Your task to perform on an android device: Go to Wikipedia Image 0: 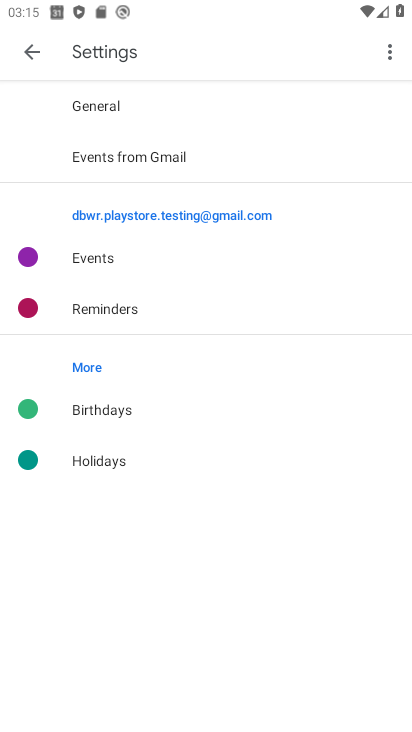
Step 0: click (138, 621)
Your task to perform on an android device: Go to Wikipedia Image 1: 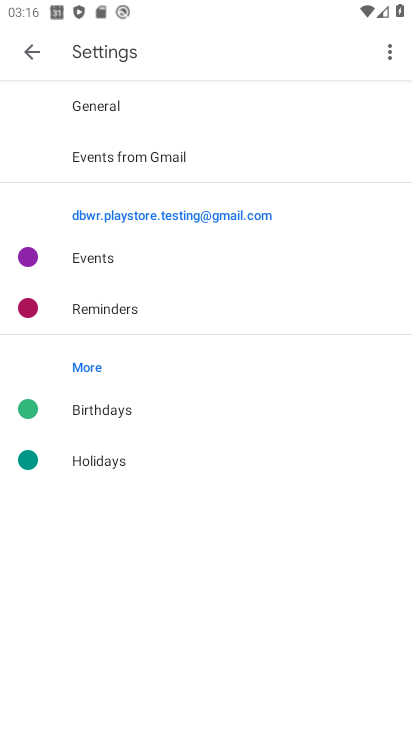
Step 1: press home button
Your task to perform on an android device: Go to Wikipedia Image 2: 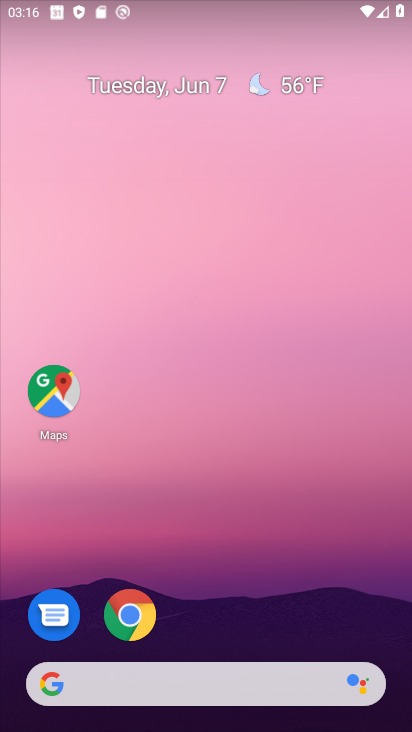
Step 2: drag from (143, 664) to (130, 366)
Your task to perform on an android device: Go to Wikipedia Image 3: 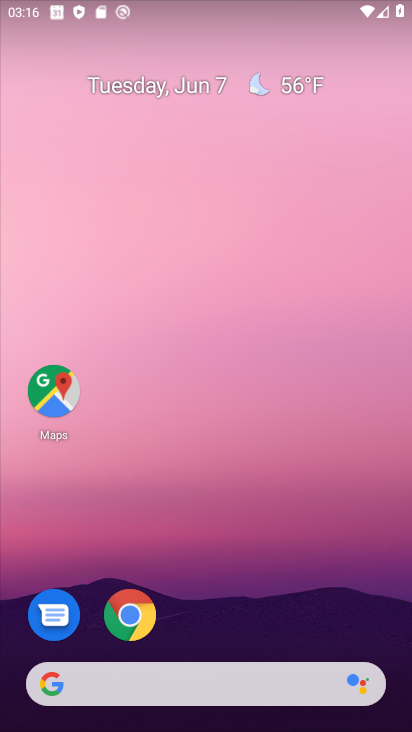
Step 3: drag from (235, 629) to (201, 285)
Your task to perform on an android device: Go to Wikipedia Image 4: 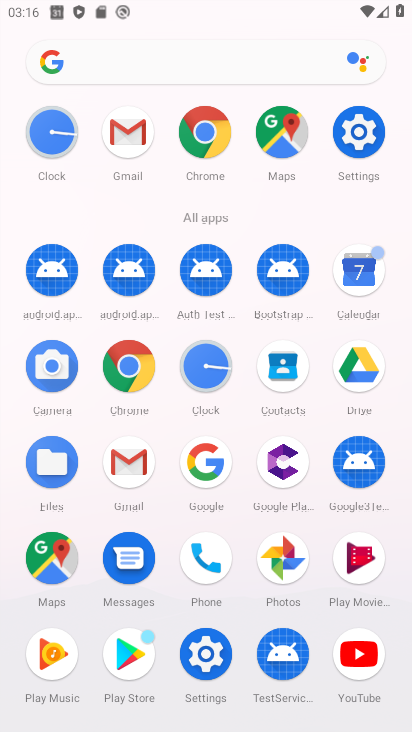
Step 4: click (211, 131)
Your task to perform on an android device: Go to Wikipedia Image 5: 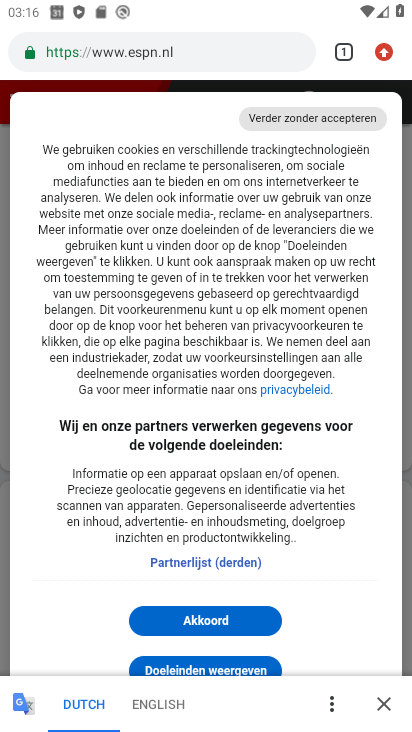
Step 5: drag from (200, 204) to (195, 459)
Your task to perform on an android device: Go to Wikipedia Image 6: 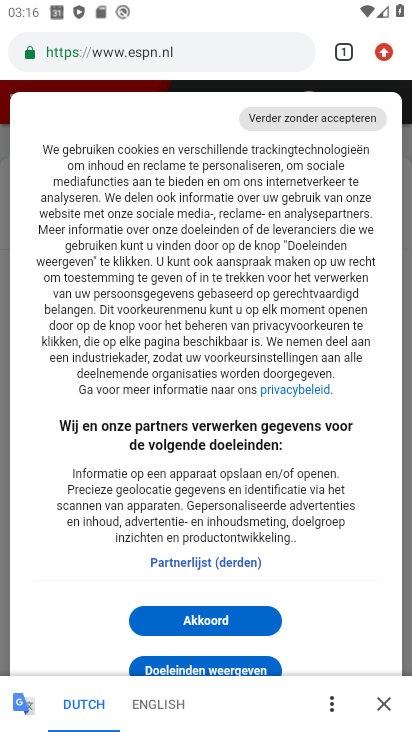
Step 6: click (342, 46)
Your task to perform on an android device: Go to Wikipedia Image 7: 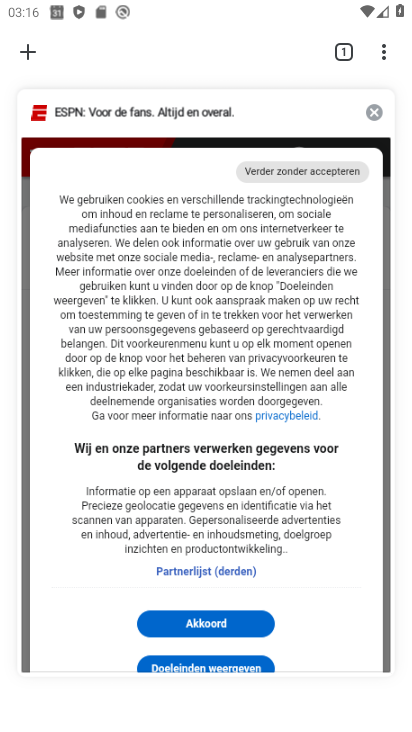
Step 7: click (379, 109)
Your task to perform on an android device: Go to Wikipedia Image 8: 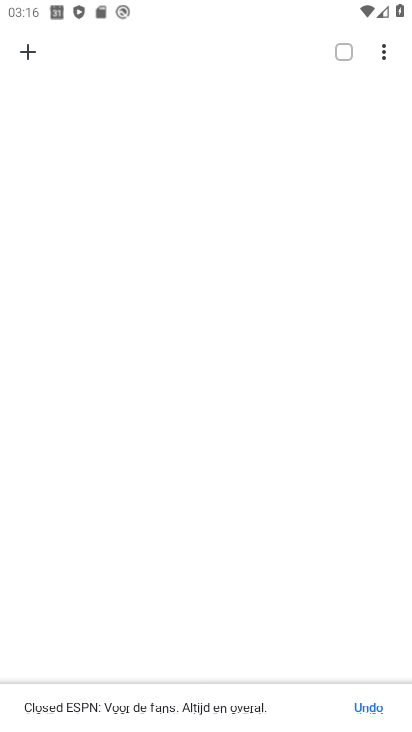
Step 8: click (29, 54)
Your task to perform on an android device: Go to Wikipedia Image 9: 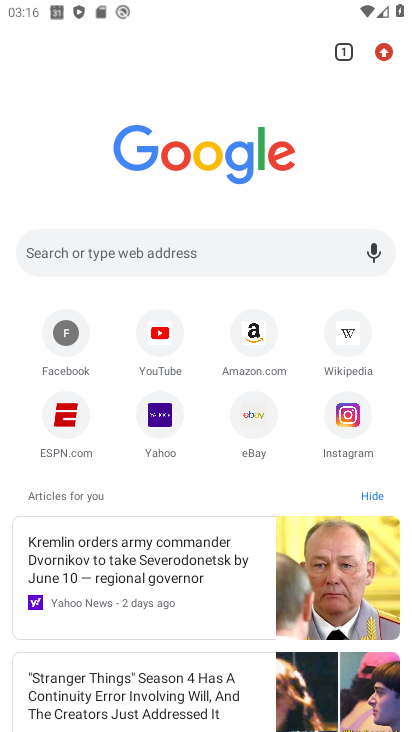
Step 9: click (357, 338)
Your task to perform on an android device: Go to Wikipedia Image 10: 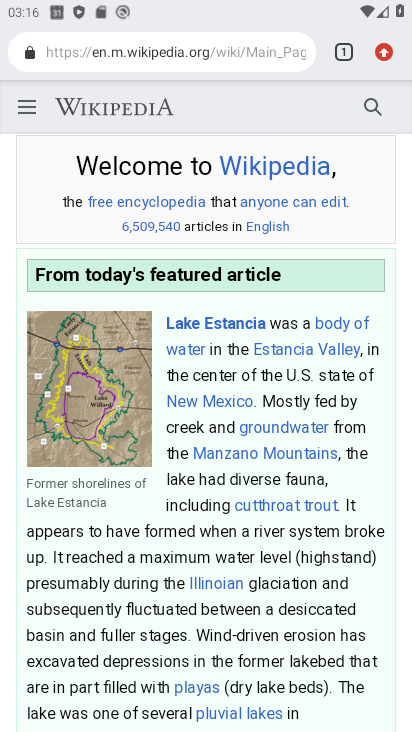
Step 10: task complete